Your task to perform on an android device: uninstall "Grab" Image 0: 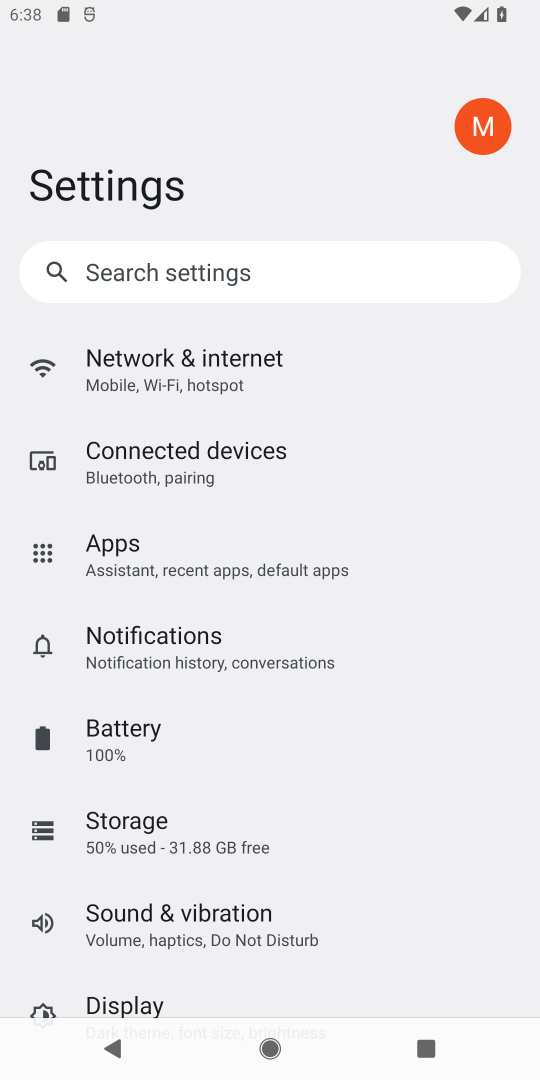
Step 0: press home button
Your task to perform on an android device: uninstall "Grab" Image 1: 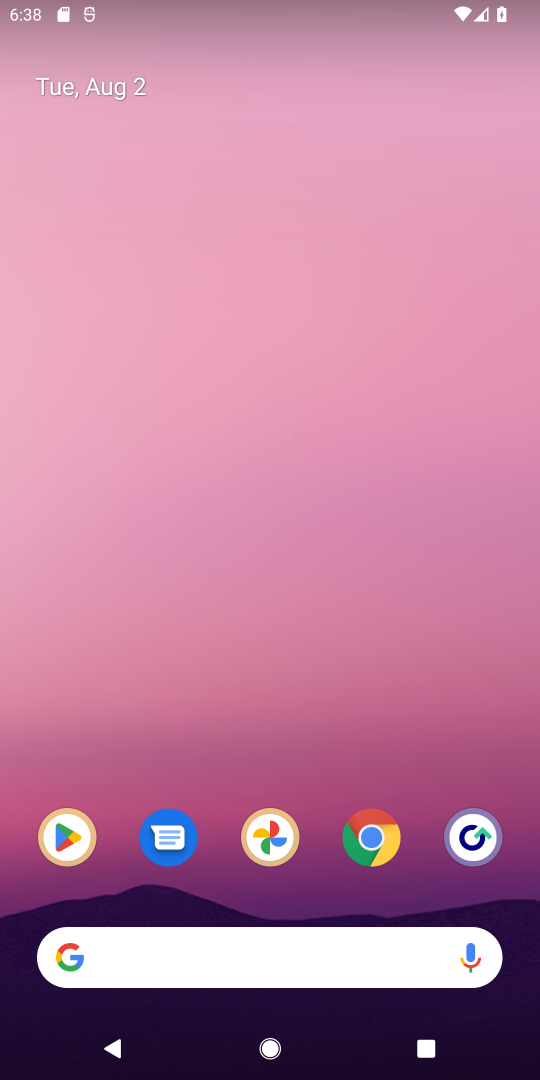
Step 1: click (66, 843)
Your task to perform on an android device: uninstall "Grab" Image 2: 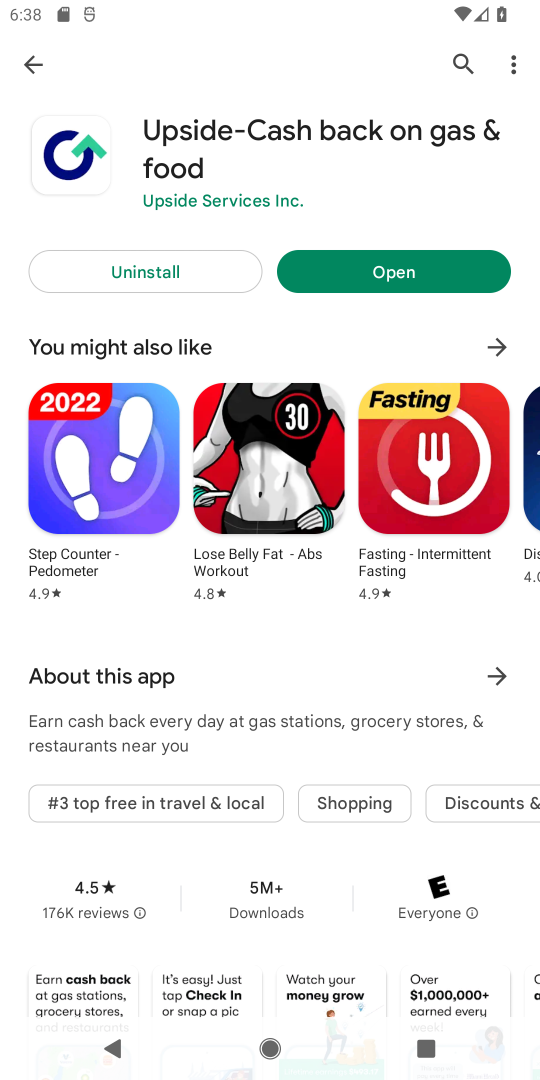
Step 2: click (463, 66)
Your task to perform on an android device: uninstall "Grab" Image 3: 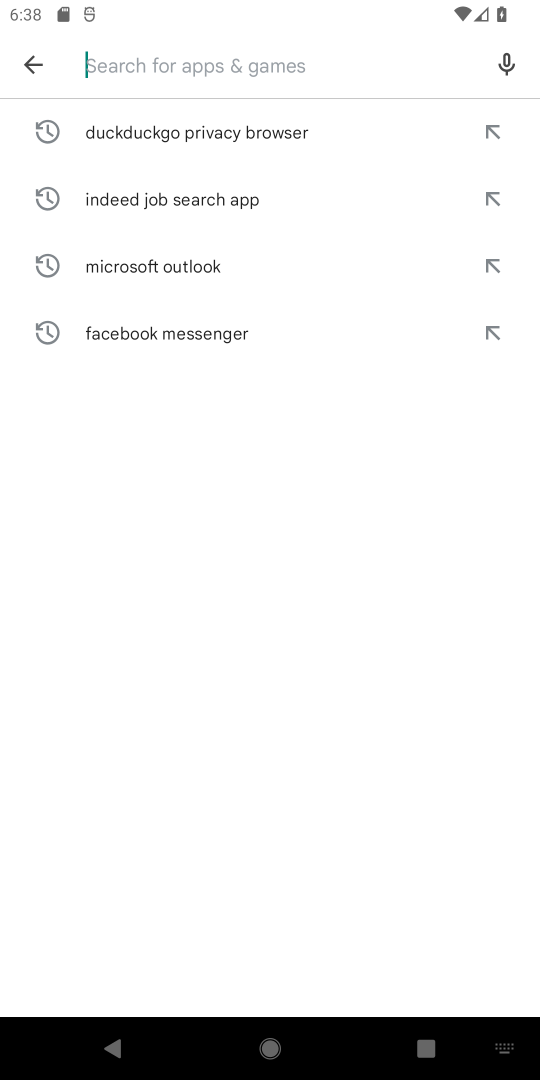
Step 3: type "Grab"
Your task to perform on an android device: uninstall "Grab" Image 4: 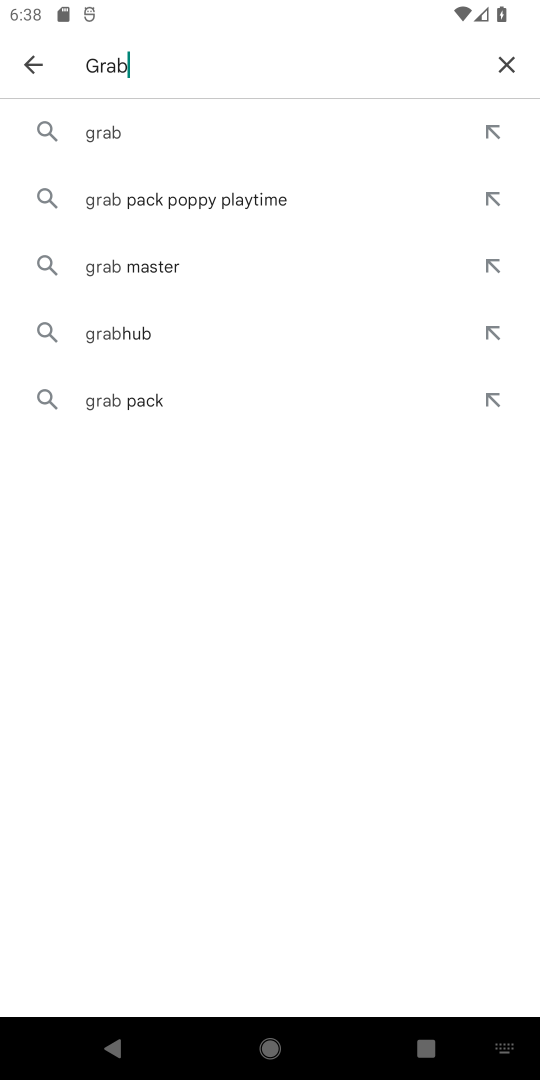
Step 4: click (99, 138)
Your task to perform on an android device: uninstall "Grab" Image 5: 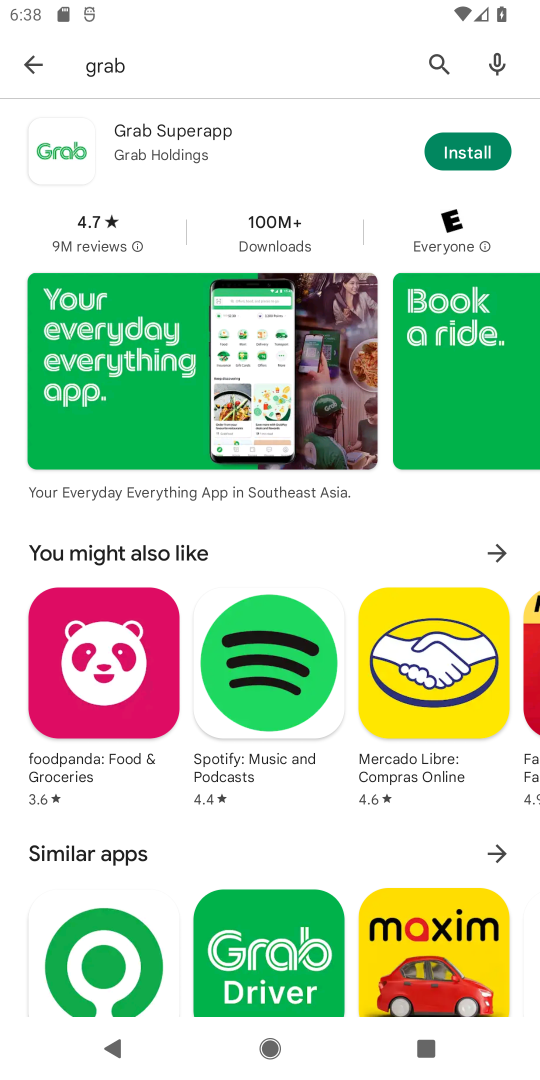
Step 5: task complete